Your task to perform on an android device: Open Google Chrome and open the bookmarks view Image 0: 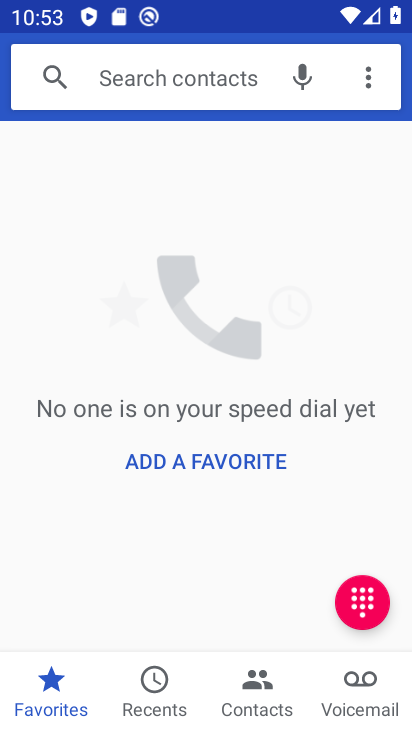
Step 0: press home button
Your task to perform on an android device: Open Google Chrome and open the bookmarks view Image 1: 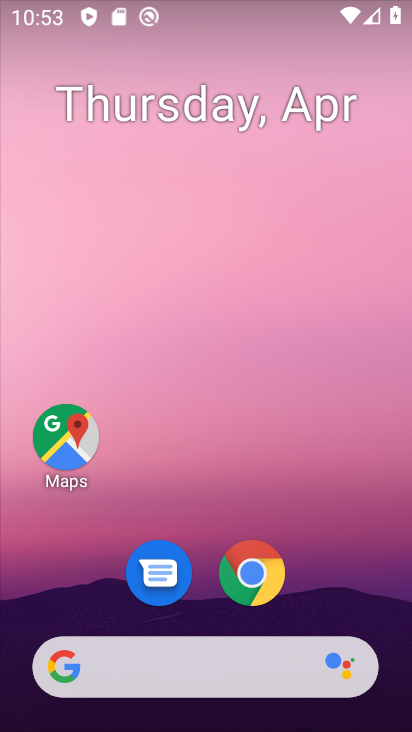
Step 1: drag from (332, 563) to (382, 64)
Your task to perform on an android device: Open Google Chrome and open the bookmarks view Image 2: 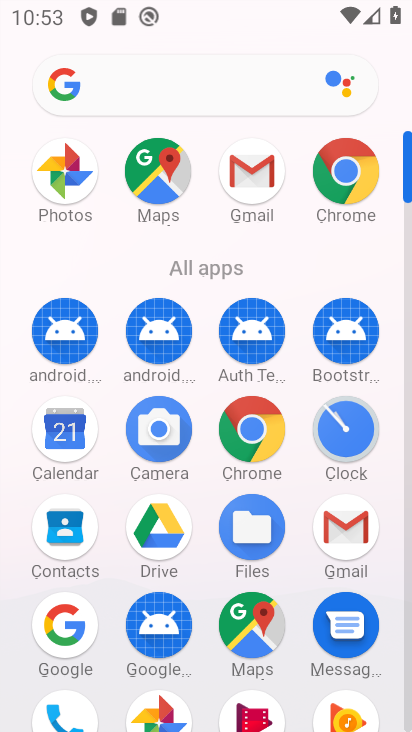
Step 2: click (256, 436)
Your task to perform on an android device: Open Google Chrome and open the bookmarks view Image 3: 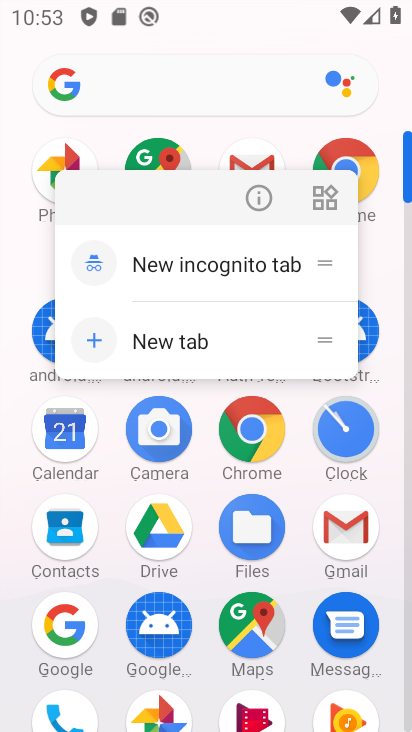
Step 3: click (254, 427)
Your task to perform on an android device: Open Google Chrome and open the bookmarks view Image 4: 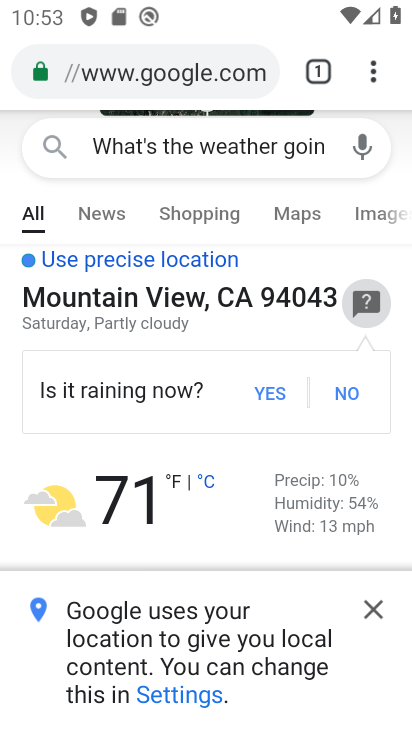
Step 4: task complete